Your task to perform on an android device: Open Maps and search for coffee Image 0: 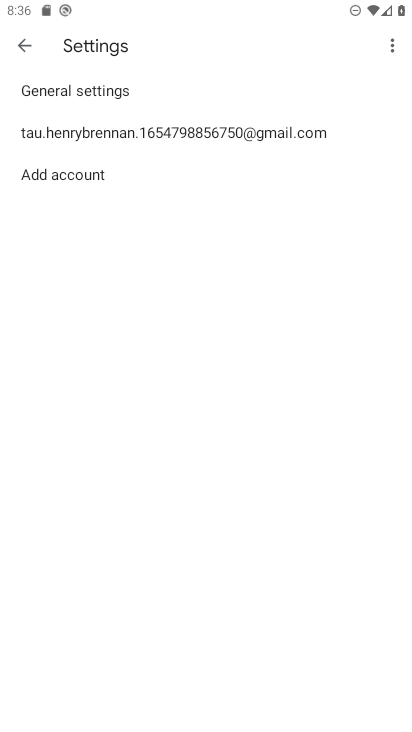
Step 0: press home button
Your task to perform on an android device: Open Maps and search for coffee Image 1: 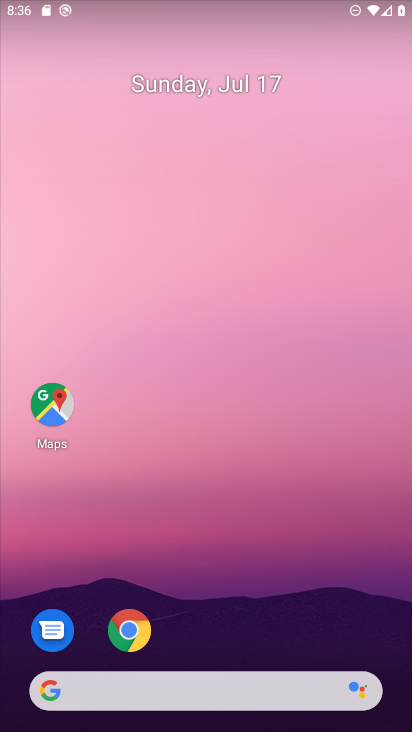
Step 1: drag from (344, 620) to (217, 80)
Your task to perform on an android device: Open Maps and search for coffee Image 2: 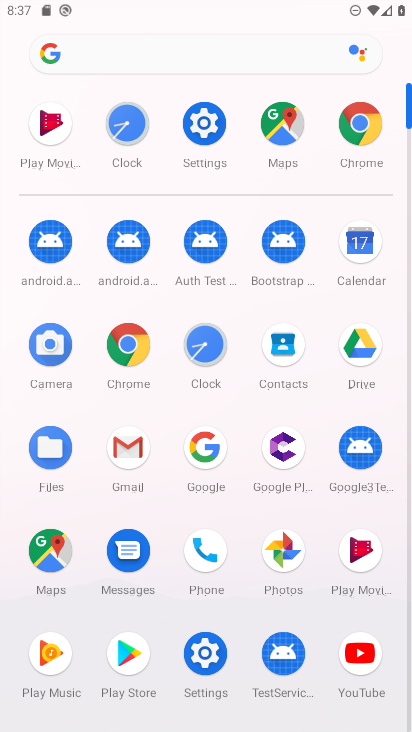
Step 2: click (58, 548)
Your task to perform on an android device: Open Maps and search for coffee Image 3: 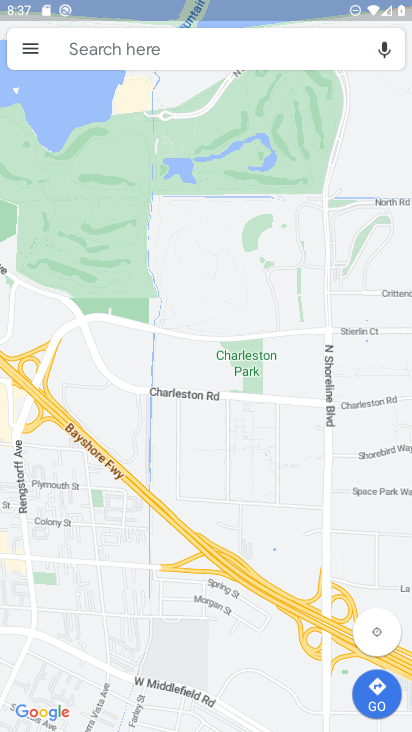
Step 3: click (94, 47)
Your task to perform on an android device: Open Maps and search for coffee Image 4: 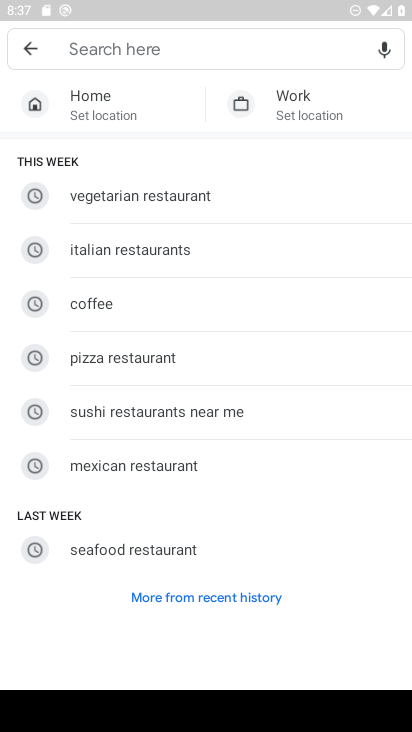
Step 4: click (133, 311)
Your task to perform on an android device: Open Maps and search for coffee Image 5: 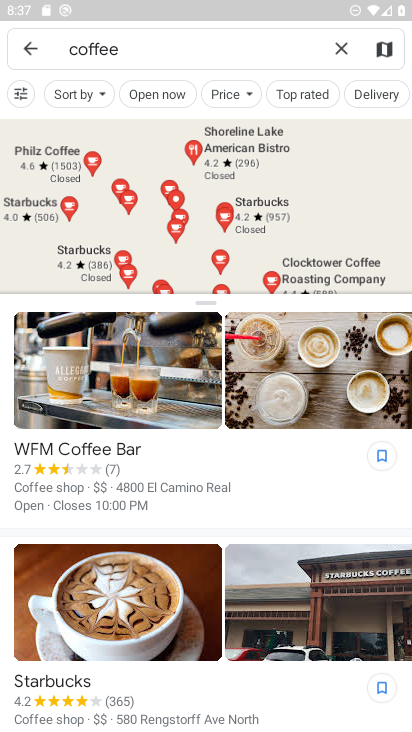
Step 5: task complete